Your task to perform on an android device: When is my next appointment? Image 0: 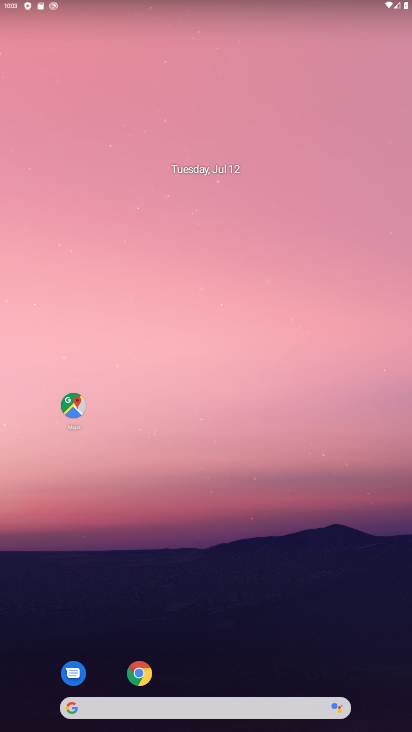
Step 0: drag from (246, 636) to (235, 228)
Your task to perform on an android device: When is my next appointment? Image 1: 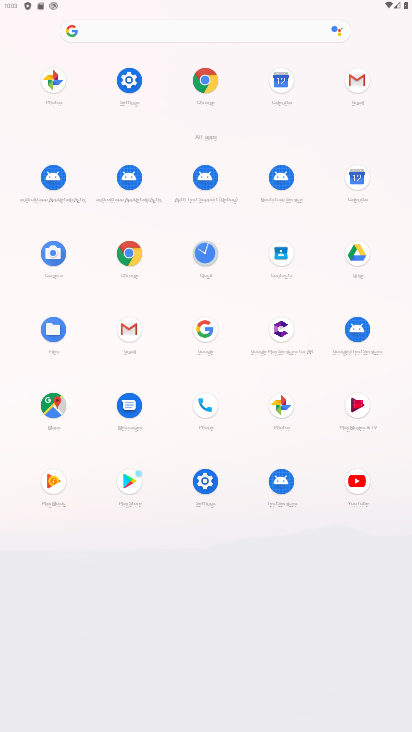
Step 1: click (362, 178)
Your task to perform on an android device: When is my next appointment? Image 2: 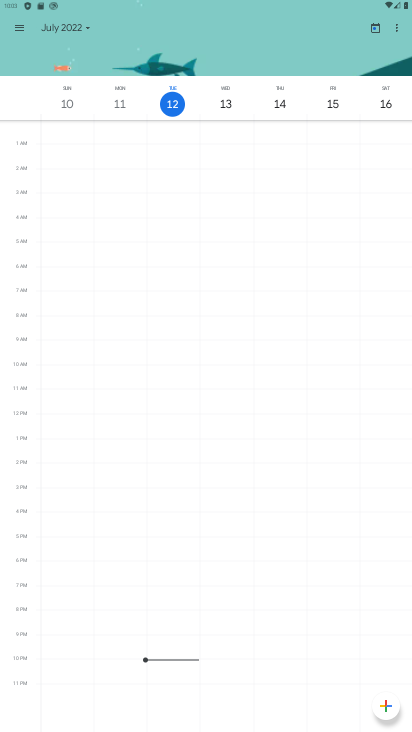
Step 2: task complete